Your task to perform on an android device: Check the news Image 0: 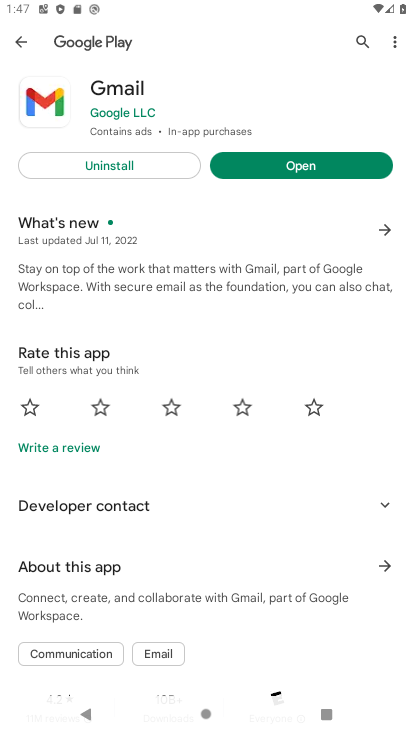
Step 0: press home button
Your task to perform on an android device: Check the news Image 1: 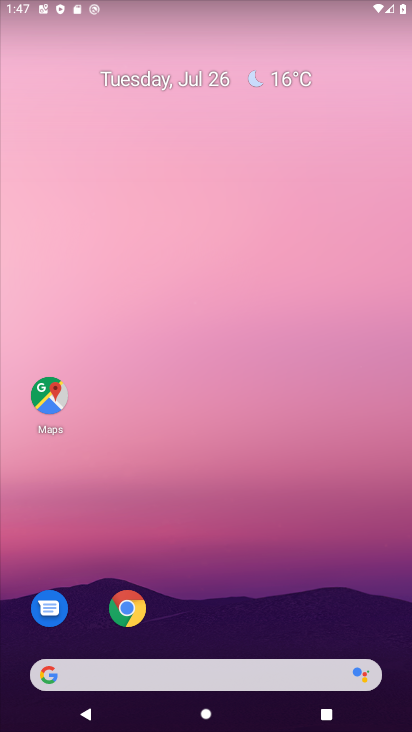
Step 1: click (225, 670)
Your task to perform on an android device: Check the news Image 2: 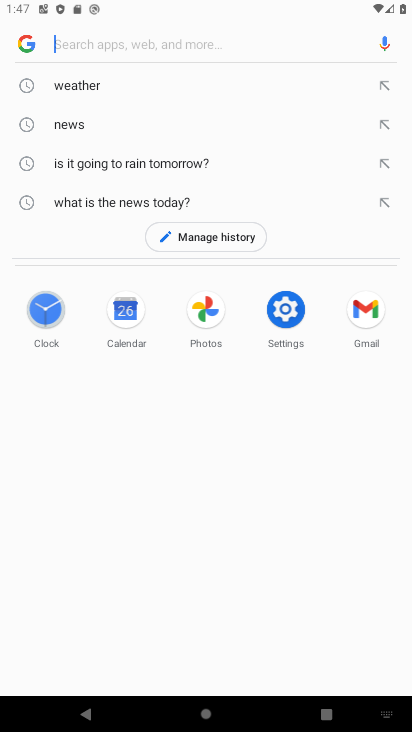
Step 2: click (61, 81)
Your task to perform on an android device: Check the news Image 3: 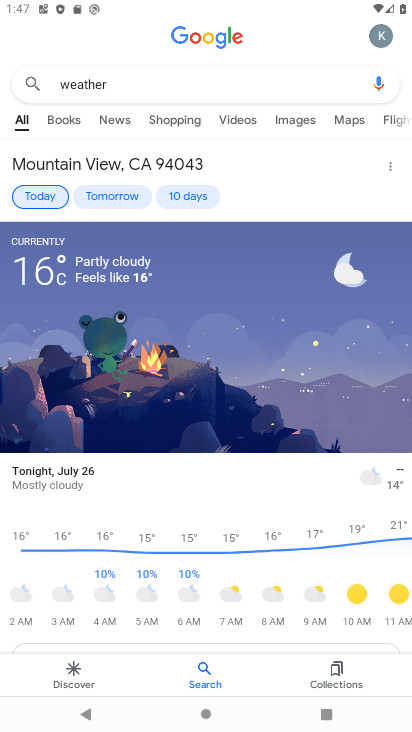
Step 3: task complete